Your task to perform on an android device: delete a single message in the gmail app Image 0: 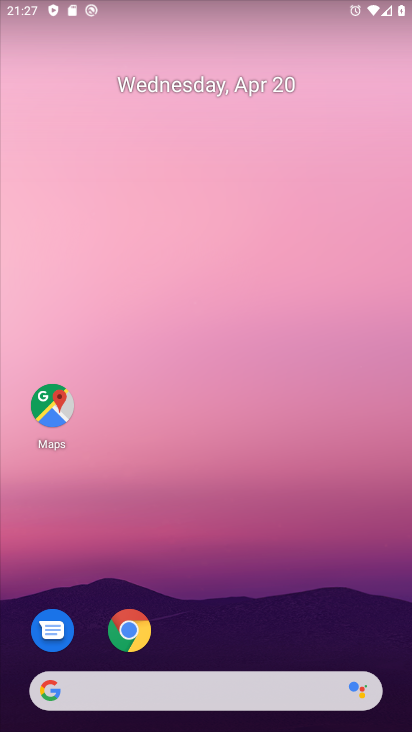
Step 0: drag from (262, 608) to (194, 160)
Your task to perform on an android device: delete a single message in the gmail app Image 1: 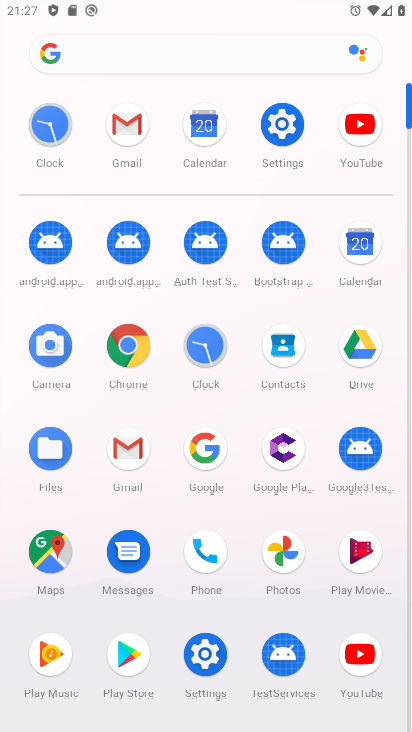
Step 1: click (129, 125)
Your task to perform on an android device: delete a single message in the gmail app Image 2: 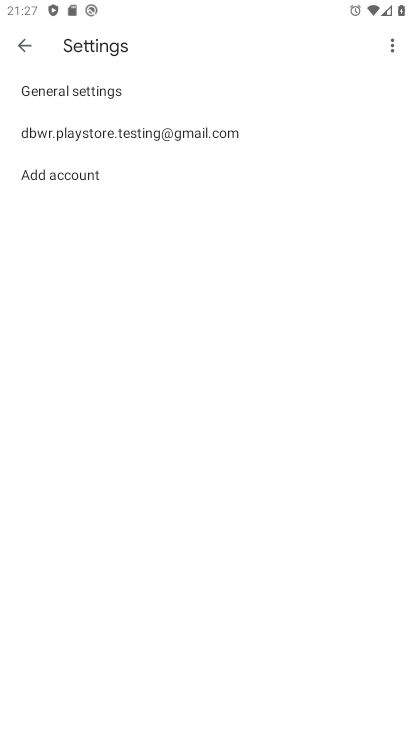
Step 2: click (25, 48)
Your task to perform on an android device: delete a single message in the gmail app Image 3: 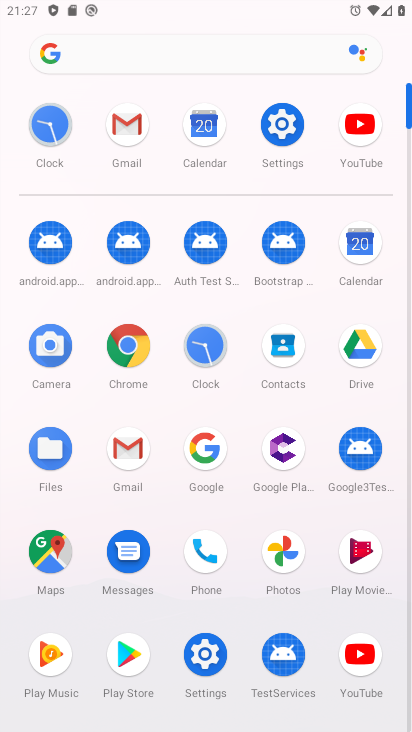
Step 3: click (125, 126)
Your task to perform on an android device: delete a single message in the gmail app Image 4: 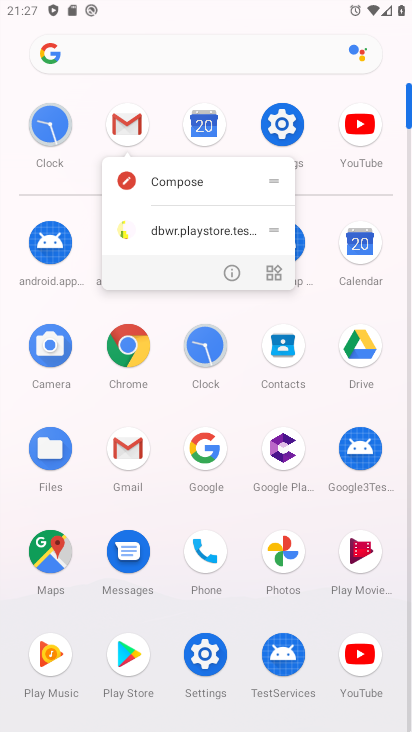
Step 4: click (114, 130)
Your task to perform on an android device: delete a single message in the gmail app Image 5: 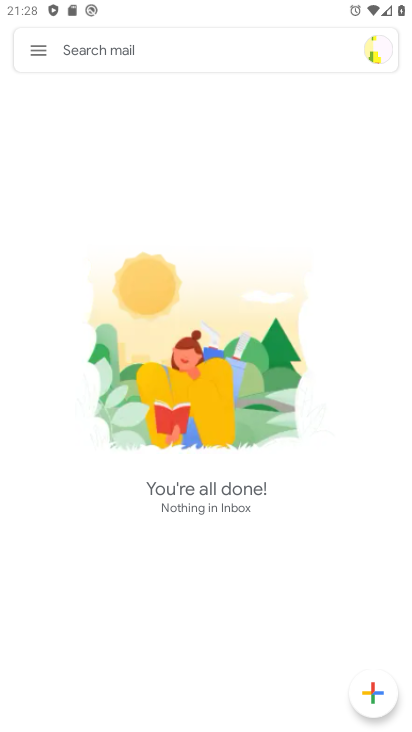
Step 5: click (38, 52)
Your task to perform on an android device: delete a single message in the gmail app Image 6: 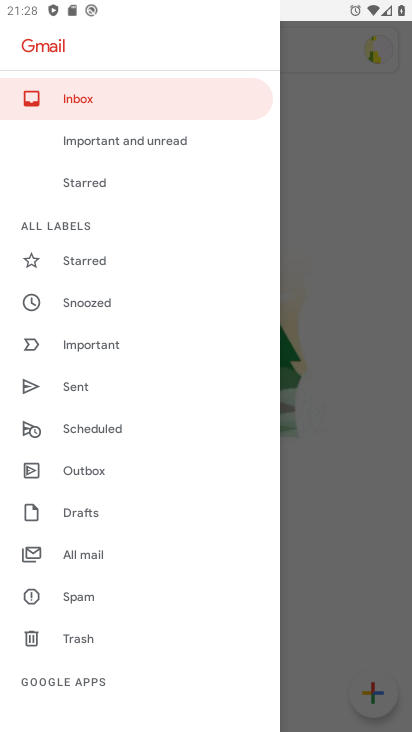
Step 6: click (82, 549)
Your task to perform on an android device: delete a single message in the gmail app Image 7: 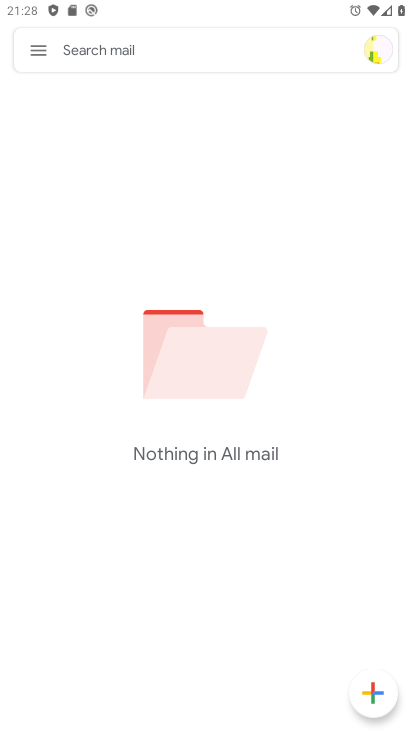
Step 7: task complete